Your task to perform on an android device: turn on the 12-hour format for clock Image 0: 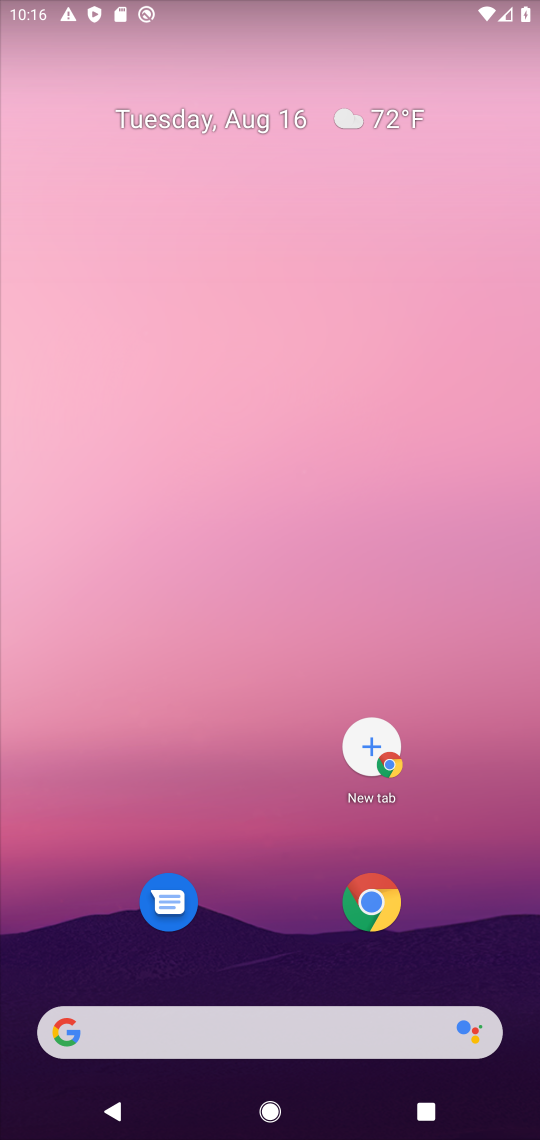
Step 0: drag from (306, 699) to (306, 542)
Your task to perform on an android device: turn on the 12-hour format for clock Image 1: 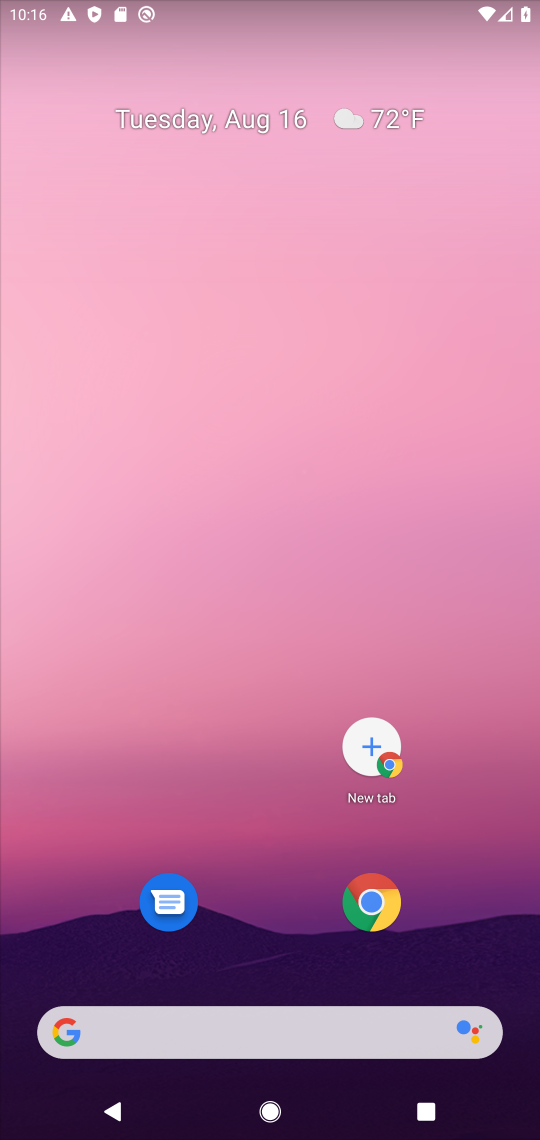
Step 1: drag from (250, 1005) to (191, 174)
Your task to perform on an android device: turn on the 12-hour format for clock Image 2: 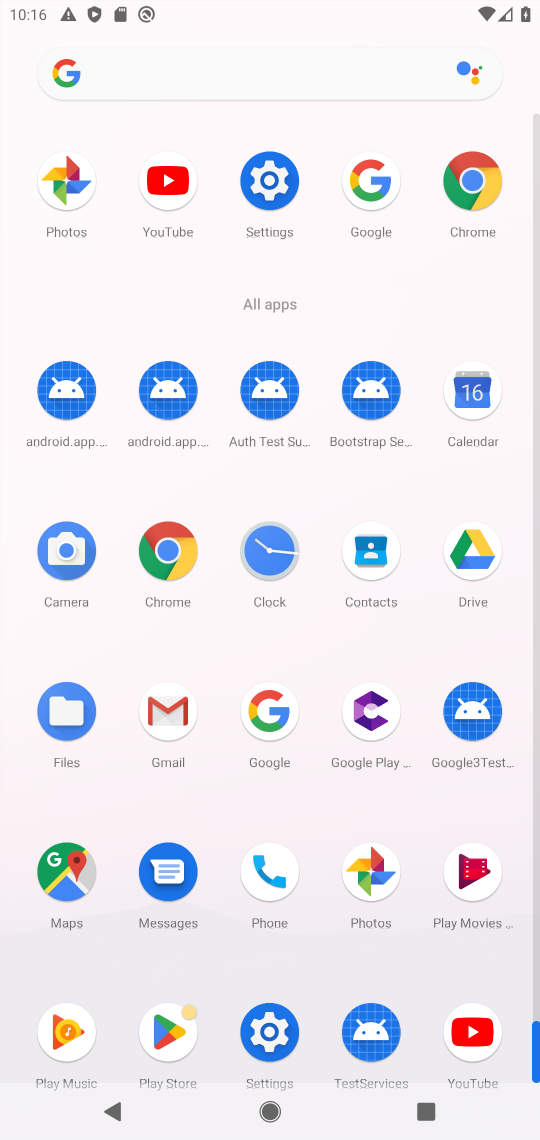
Step 2: click (256, 543)
Your task to perform on an android device: turn on the 12-hour format for clock Image 3: 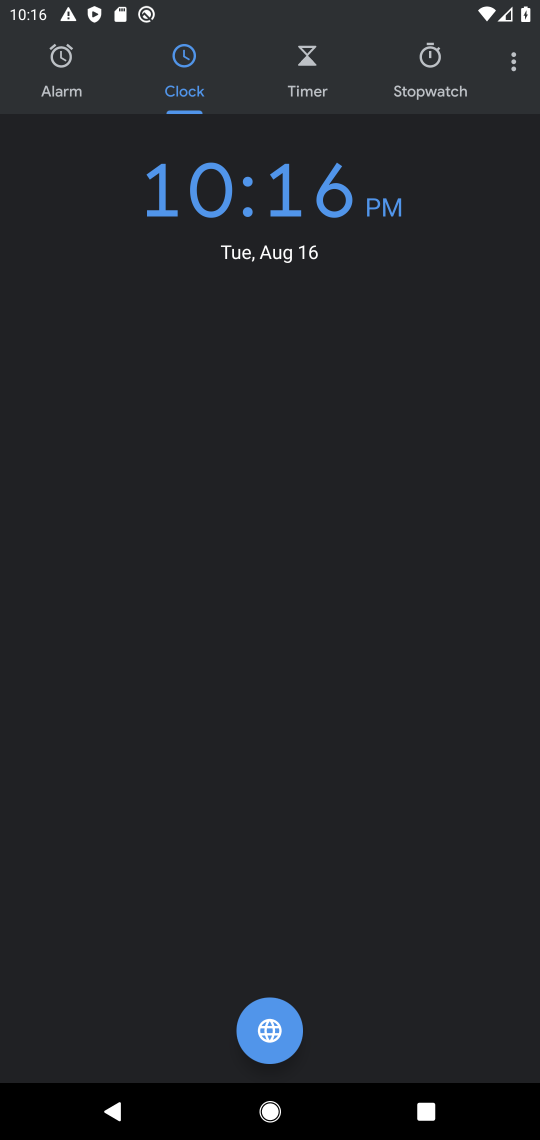
Step 3: click (512, 64)
Your task to perform on an android device: turn on the 12-hour format for clock Image 4: 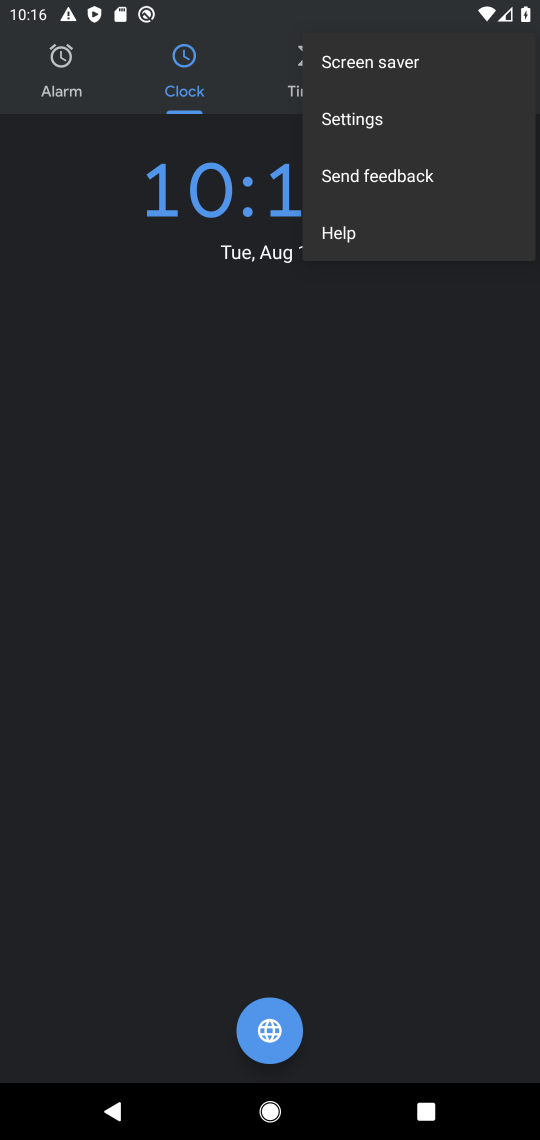
Step 4: click (322, 127)
Your task to perform on an android device: turn on the 12-hour format for clock Image 5: 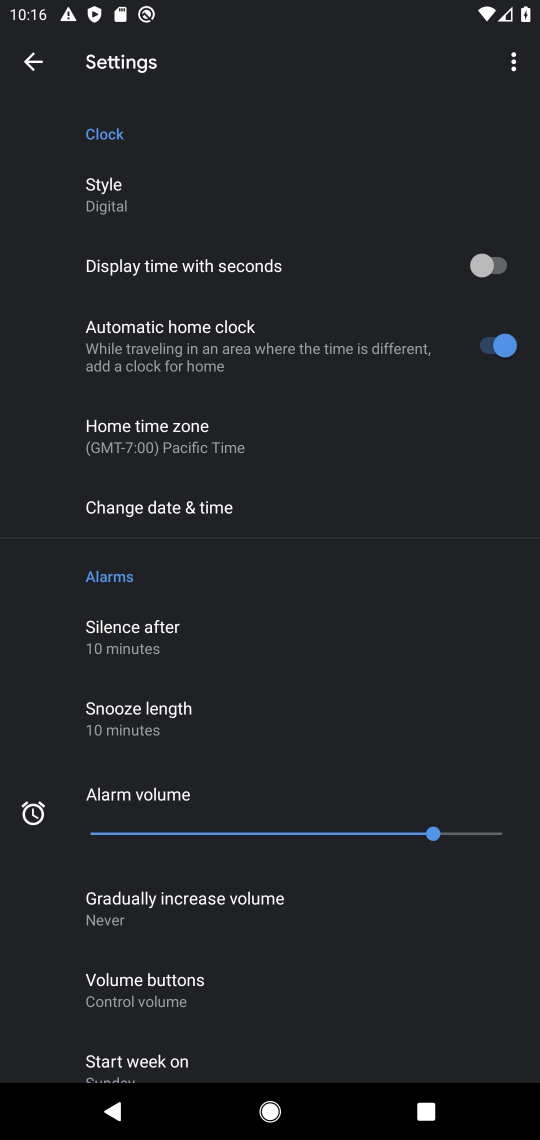
Step 5: click (177, 505)
Your task to perform on an android device: turn on the 12-hour format for clock Image 6: 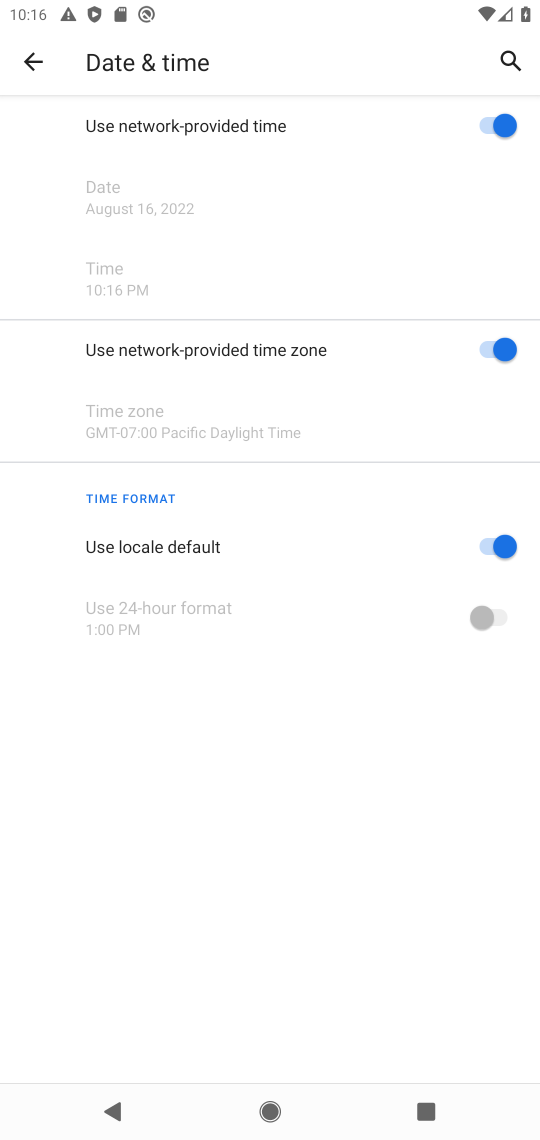
Step 6: task complete